Your task to perform on an android device: allow notifications from all sites in the chrome app Image 0: 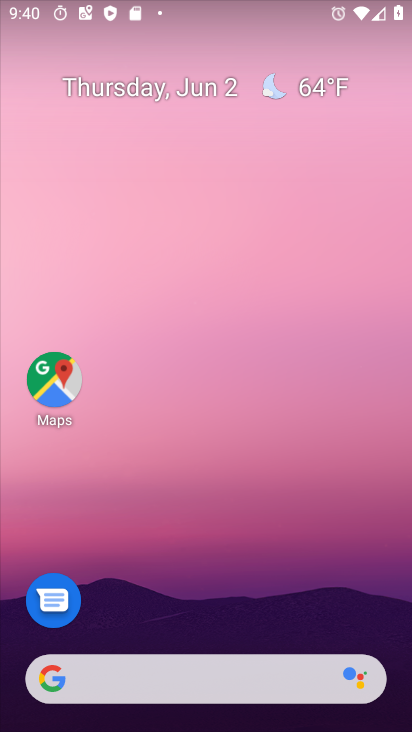
Step 0: drag from (198, 612) to (164, 101)
Your task to perform on an android device: allow notifications from all sites in the chrome app Image 1: 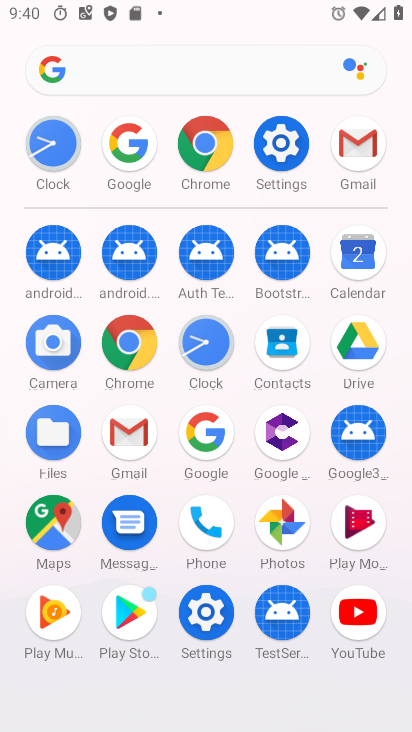
Step 1: click (125, 344)
Your task to perform on an android device: allow notifications from all sites in the chrome app Image 2: 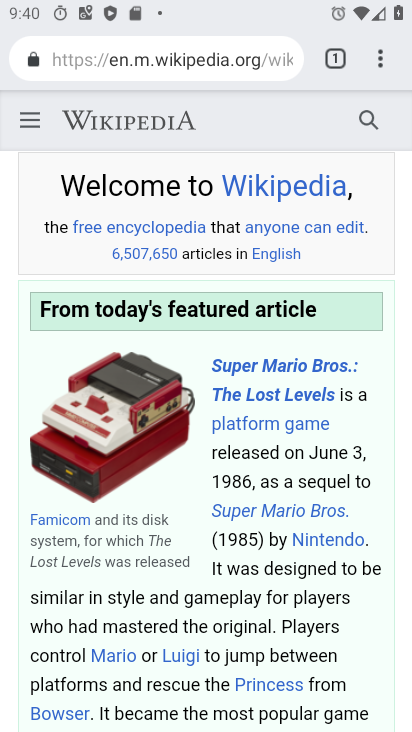
Step 2: click (370, 55)
Your task to perform on an android device: allow notifications from all sites in the chrome app Image 3: 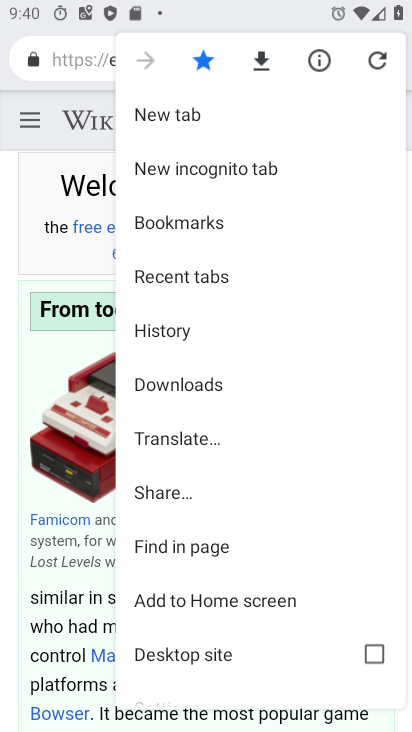
Step 3: drag from (203, 561) to (251, 249)
Your task to perform on an android device: allow notifications from all sites in the chrome app Image 4: 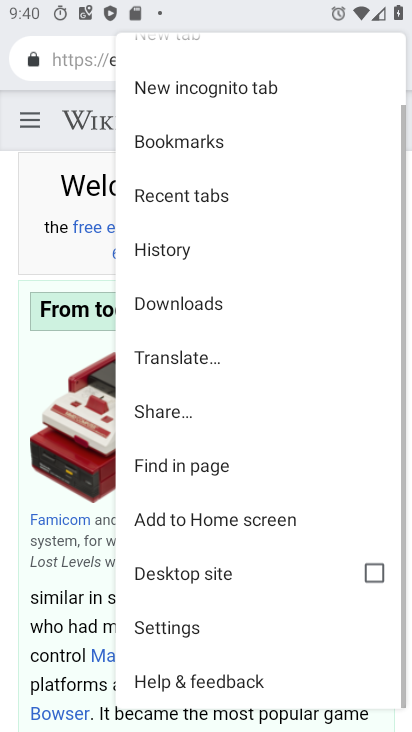
Step 4: click (187, 628)
Your task to perform on an android device: allow notifications from all sites in the chrome app Image 5: 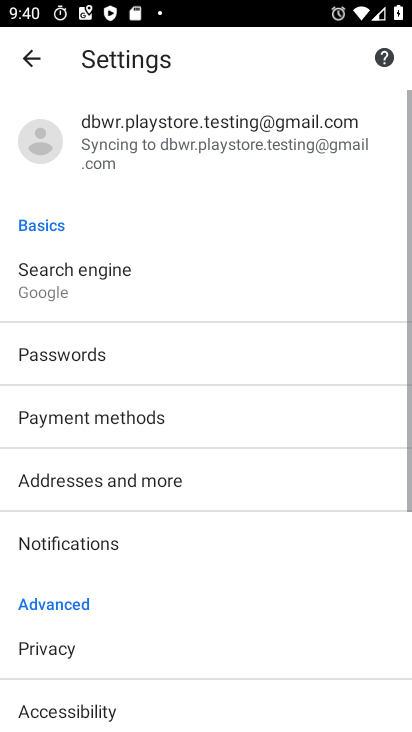
Step 5: drag from (64, 664) to (85, 265)
Your task to perform on an android device: allow notifications from all sites in the chrome app Image 6: 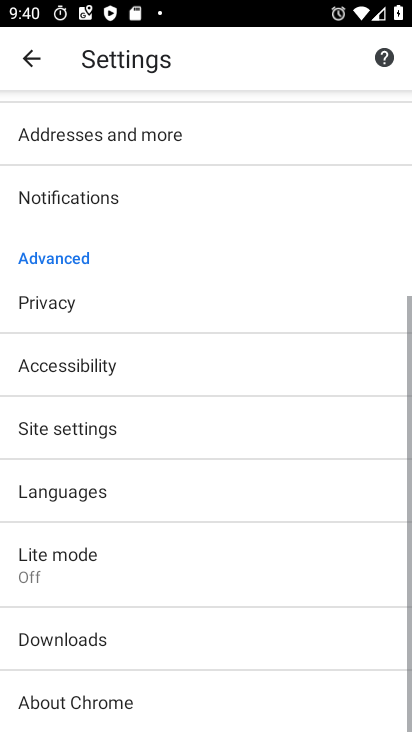
Step 6: click (59, 429)
Your task to perform on an android device: allow notifications from all sites in the chrome app Image 7: 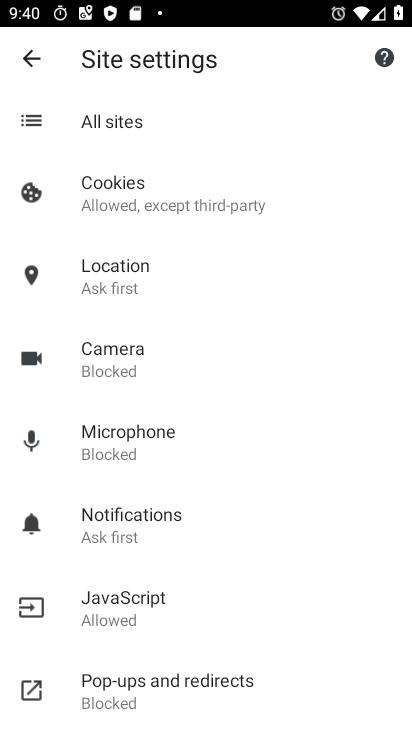
Step 7: click (127, 531)
Your task to perform on an android device: allow notifications from all sites in the chrome app Image 8: 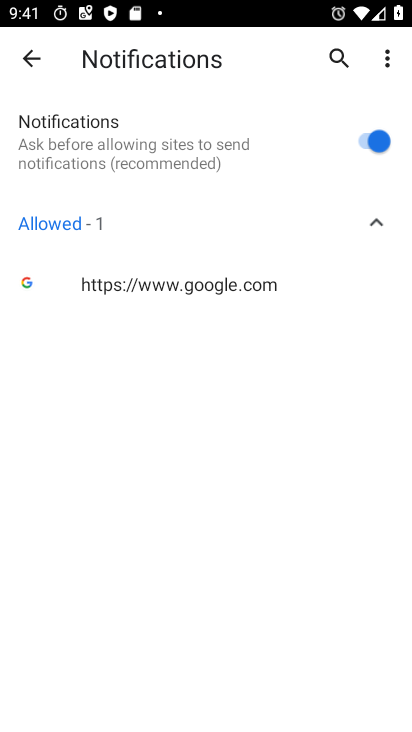
Step 8: task complete